Your task to perform on an android device: Is it going to rain today? Image 0: 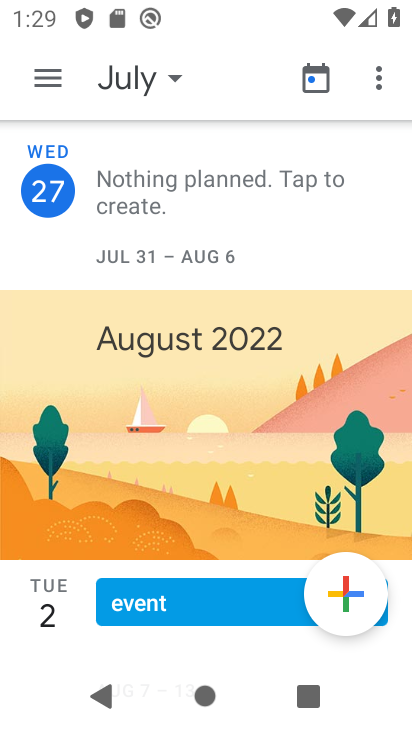
Step 0: press back button
Your task to perform on an android device: Is it going to rain today? Image 1: 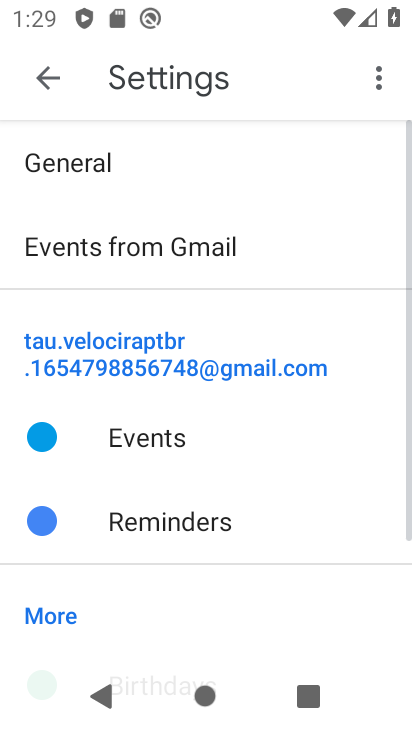
Step 1: press back button
Your task to perform on an android device: Is it going to rain today? Image 2: 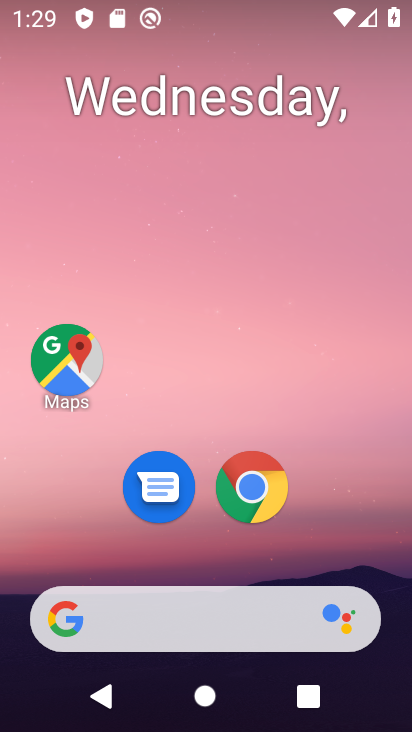
Step 2: click (196, 624)
Your task to perform on an android device: Is it going to rain today? Image 3: 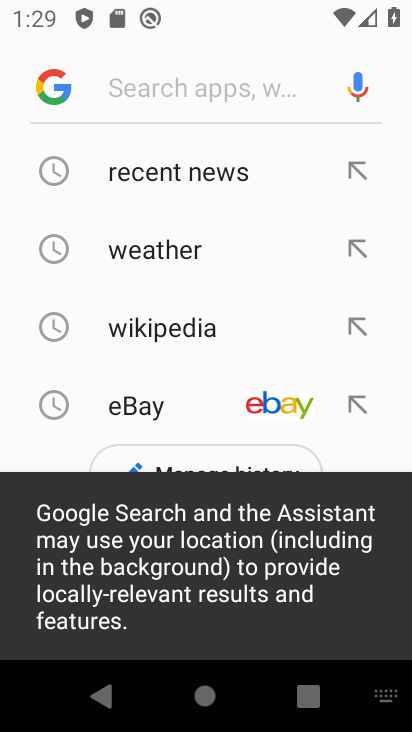
Step 3: click (163, 259)
Your task to perform on an android device: Is it going to rain today? Image 4: 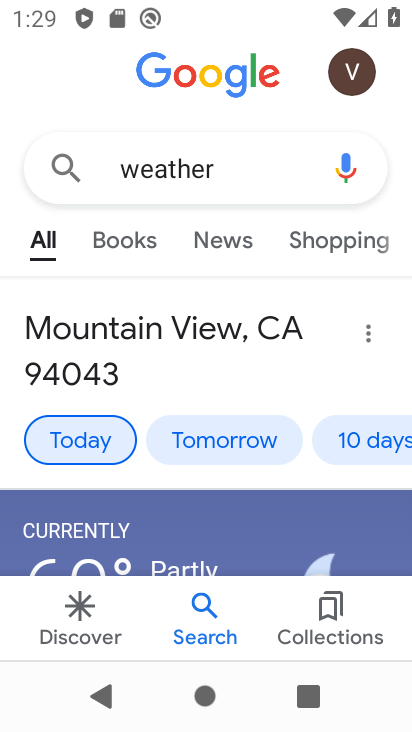
Step 4: task complete